Your task to perform on an android device: toggle pop-ups in chrome Image 0: 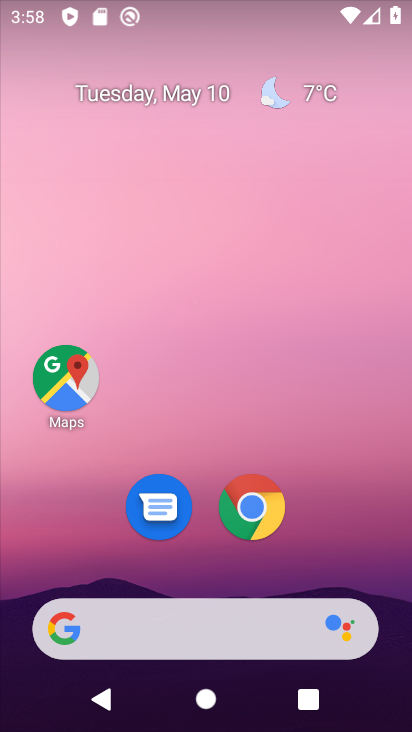
Step 0: click (256, 493)
Your task to perform on an android device: toggle pop-ups in chrome Image 1: 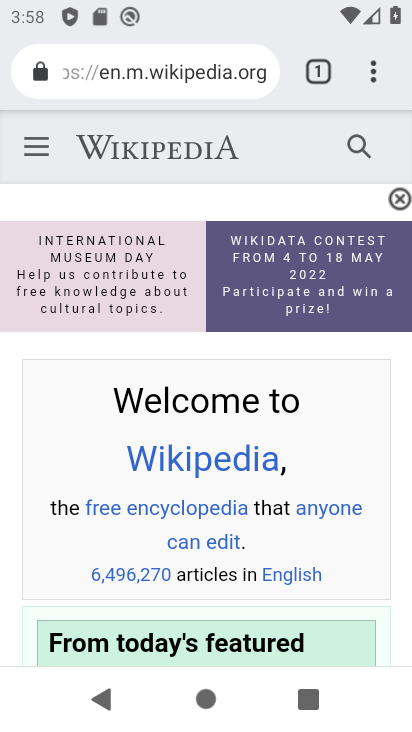
Step 1: click (353, 70)
Your task to perform on an android device: toggle pop-ups in chrome Image 2: 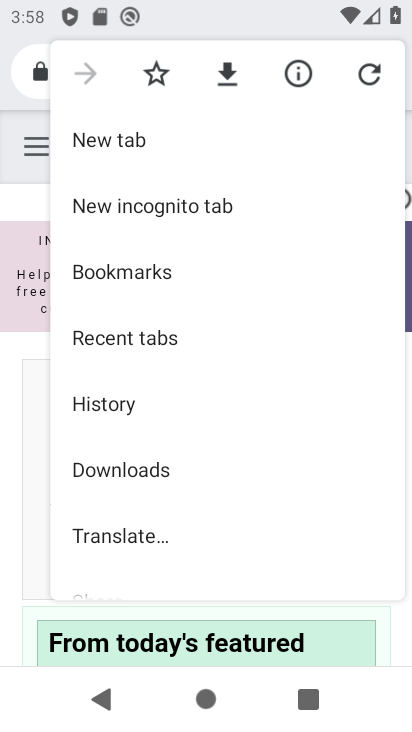
Step 2: drag from (113, 398) to (142, 96)
Your task to perform on an android device: toggle pop-ups in chrome Image 3: 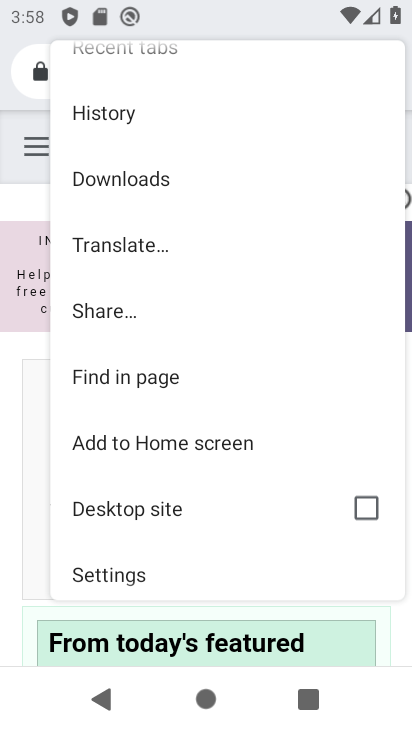
Step 3: click (114, 581)
Your task to perform on an android device: toggle pop-ups in chrome Image 4: 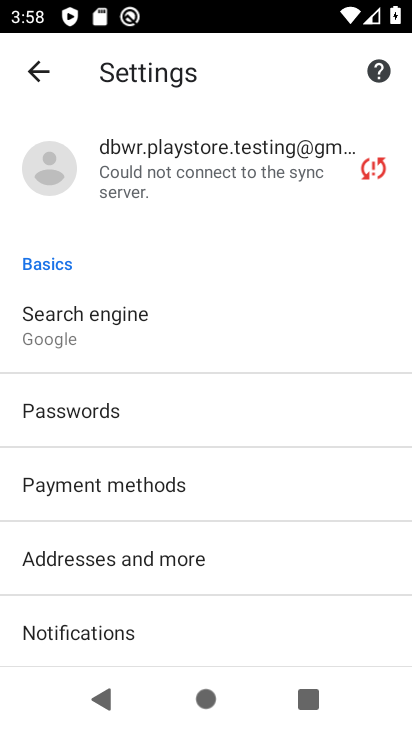
Step 4: drag from (97, 604) to (146, 312)
Your task to perform on an android device: toggle pop-ups in chrome Image 5: 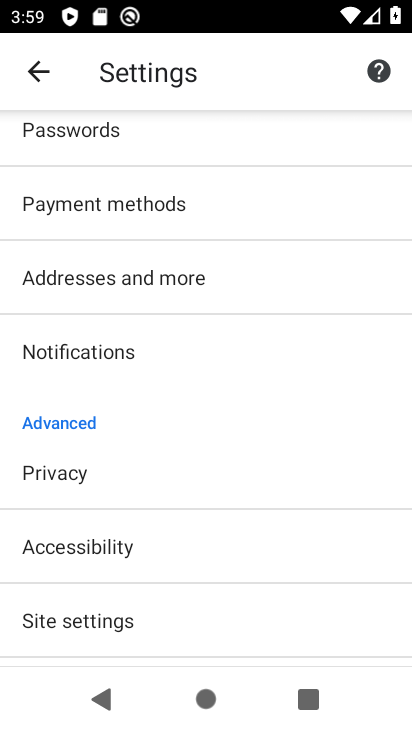
Step 5: drag from (116, 578) to (136, 413)
Your task to perform on an android device: toggle pop-ups in chrome Image 6: 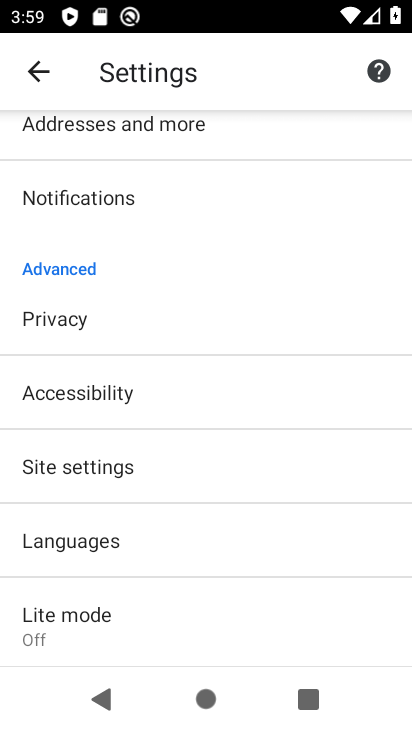
Step 6: click (116, 460)
Your task to perform on an android device: toggle pop-ups in chrome Image 7: 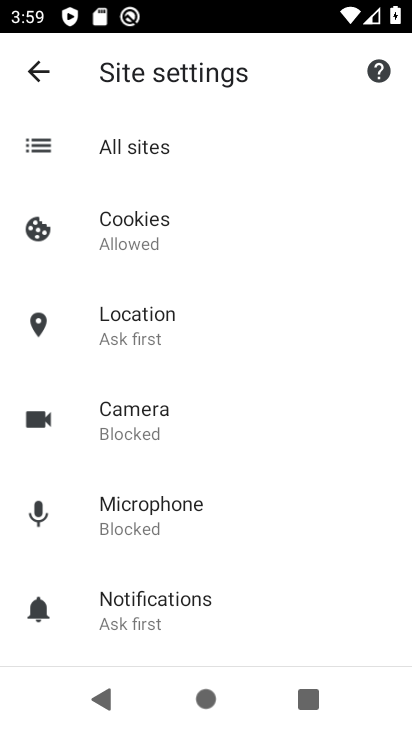
Step 7: drag from (183, 601) to (221, 296)
Your task to perform on an android device: toggle pop-ups in chrome Image 8: 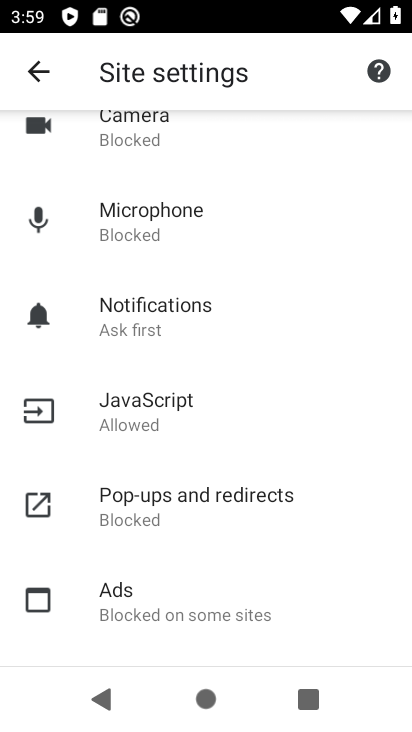
Step 8: click (139, 516)
Your task to perform on an android device: toggle pop-ups in chrome Image 9: 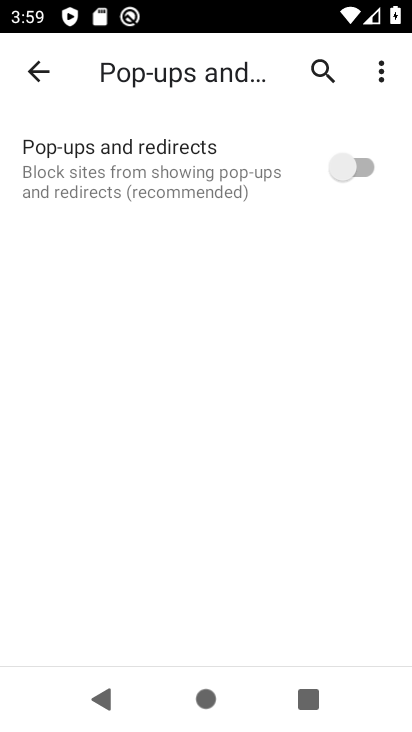
Step 9: click (365, 161)
Your task to perform on an android device: toggle pop-ups in chrome Image 10: 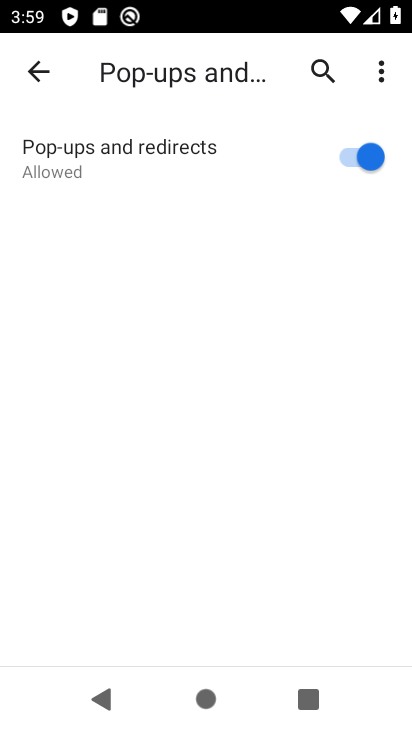
Step 10: task complete